Your task to perform on an android device: How much does a3 bedroom apartment rent for in Portland? Image 0: 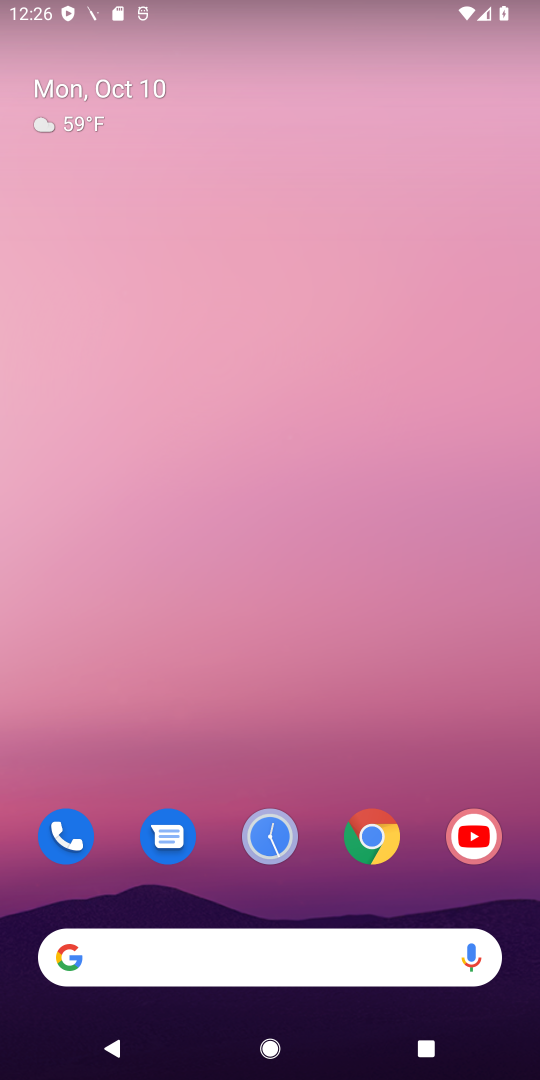
Step 0: click (382, 829)
Your task to perform on an android device: How much does a3 bedroom apartment rent for in Portland? Image 1: 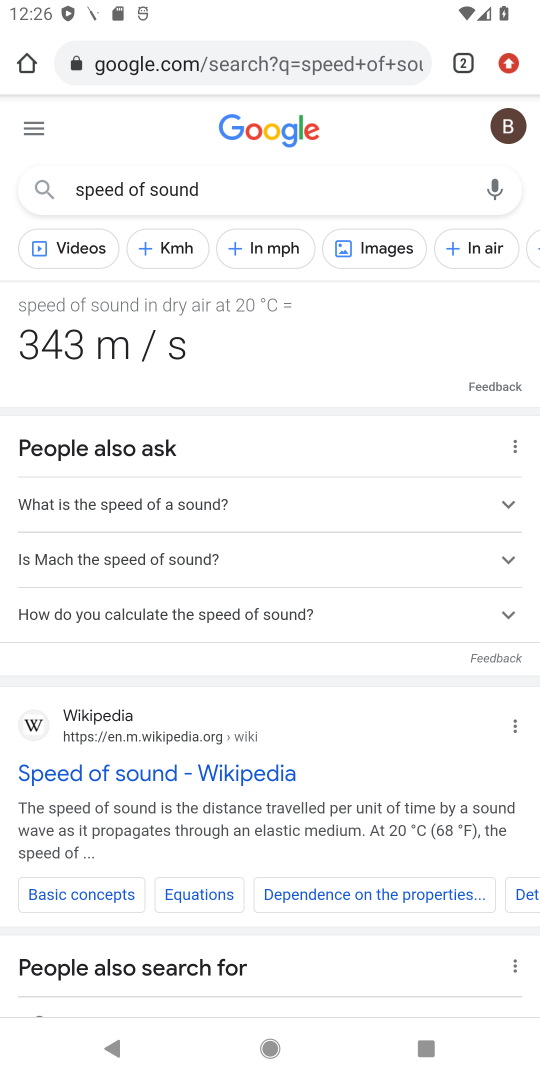
Step 1: click (349, 64)
Your task to perform on an android device: How much does a3 bedroom apartment rent for in Portland? Image 2: 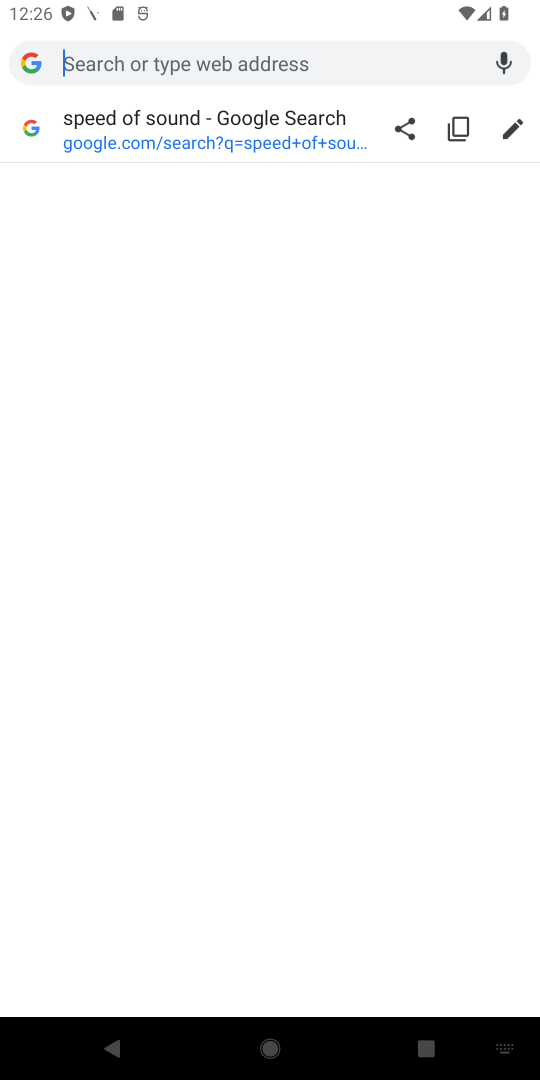
Step 2: type "3 bedroom apartment rent for in Portland"
Your task to perform on an android device: How much does a3 bedroom apartment rent for in Portland? Image 3: 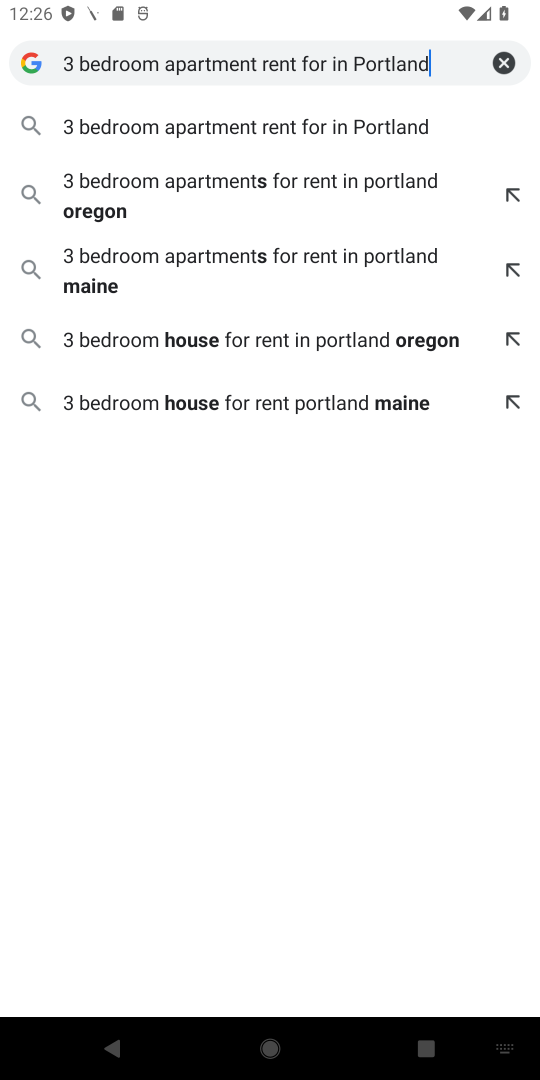
Step 3: click (330, 113)
Your task to perform on an android device: How much does a3 bedroom apartment rent for in Portland? Image 4: 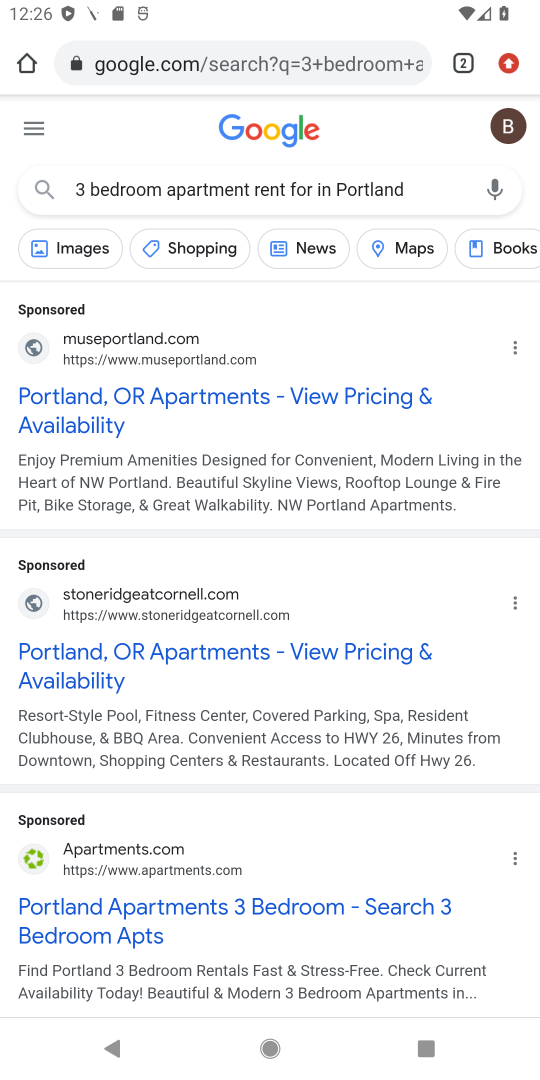
Step 4: drag from (257, 846) to (318, 240)
Your task to perform on an android device: How much does a3 bedroom apartment rent for in Portland? Image 5: 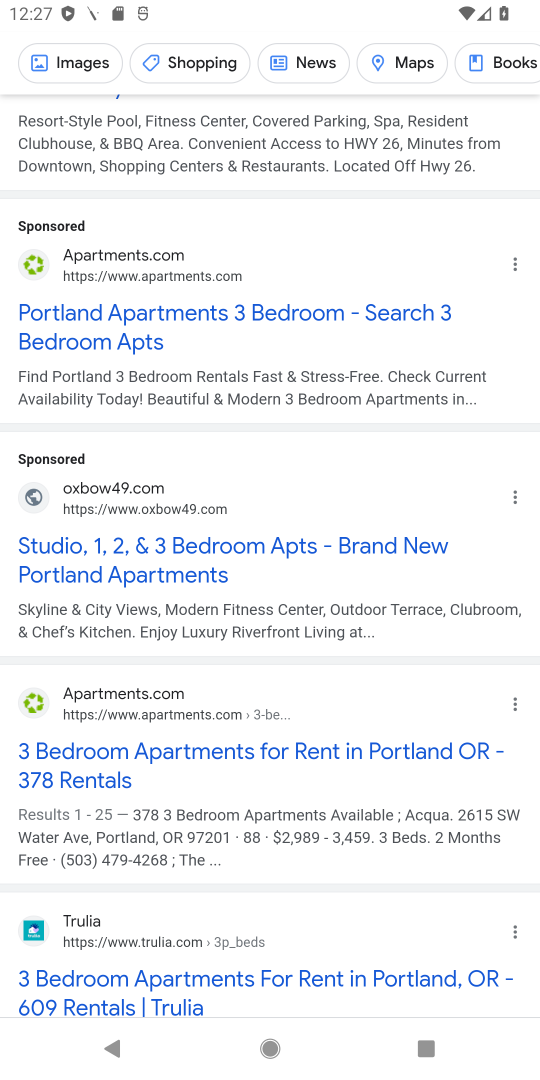
Step 5: click (163, 754)
Your task to perform on an android device: How much does a3 bedroom apartment rent for in Portland? Image 6: 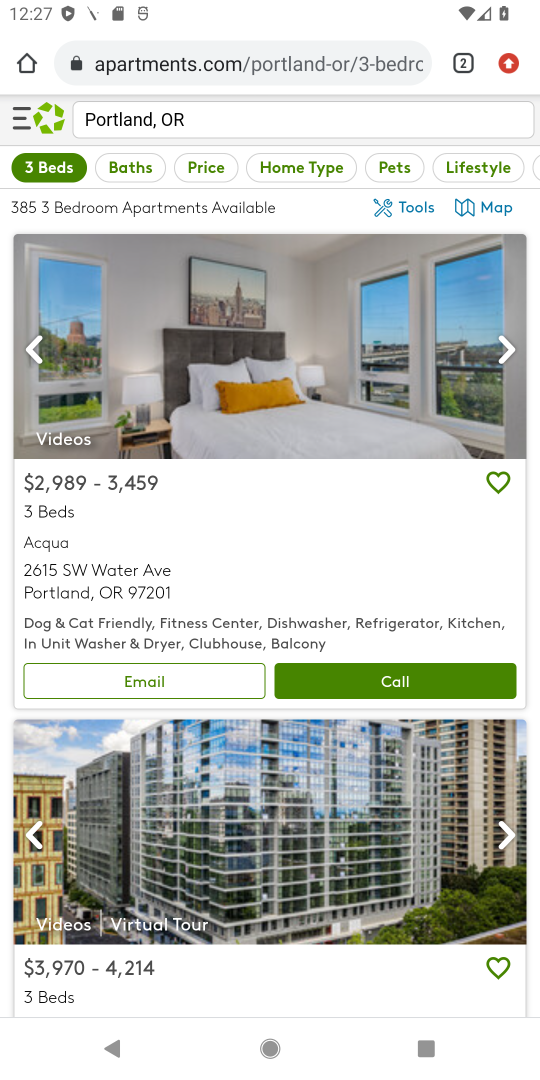
Step 6: task complete